Your task to perform on an android device: turn on priority inbox in the gmail app Image 0: 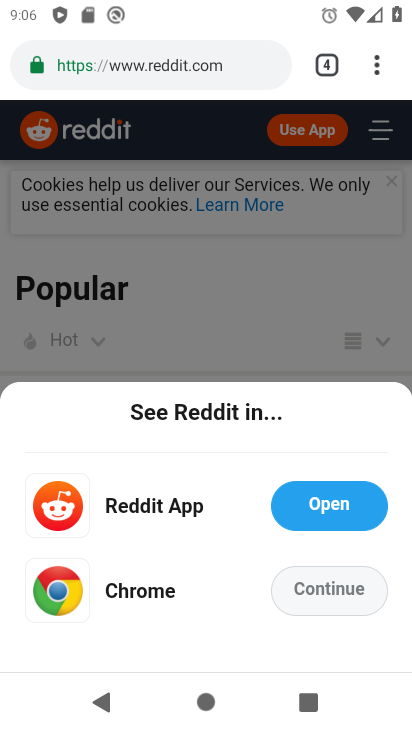
Step 0: press home button
Your task to perform on an android device: turn on priority inbox in the gmail app Image 1: 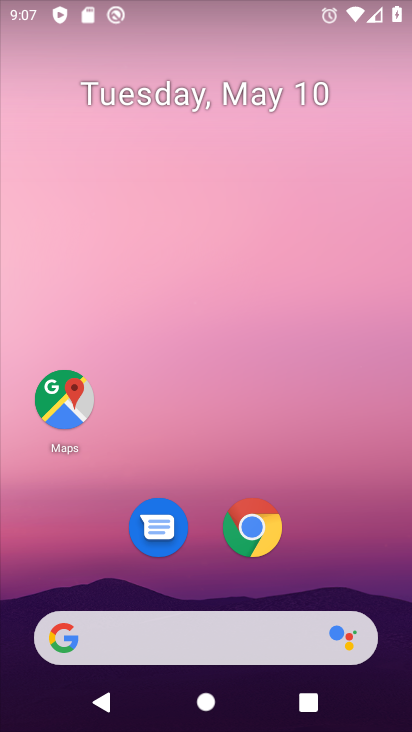
Step 1: drag from (219, 576) to (160, 0)
Your task to perform on an android device: turn on priority inbox in the gmail app Image 2: 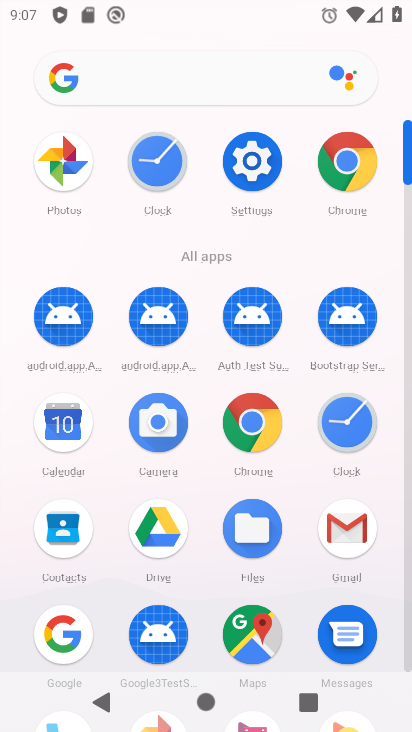
Step 2: click (342, 522)
Your task to perform on an android device: turn on priority inbox in the gmail app Image 3: 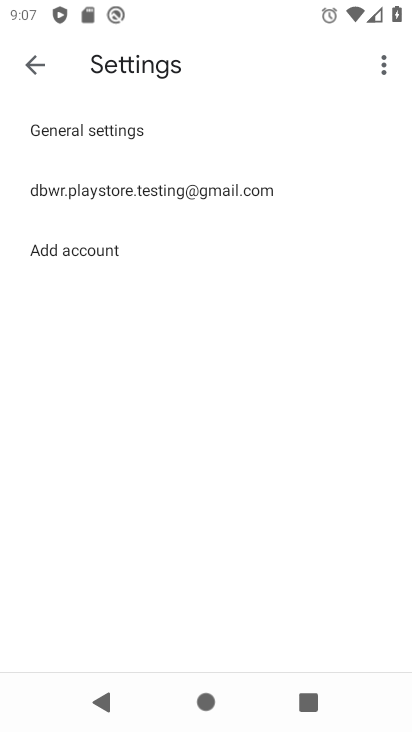
Step 3: click (80, 192)
Your task to perform on an android device: turn on priority inbox in the gmail app Image 4: 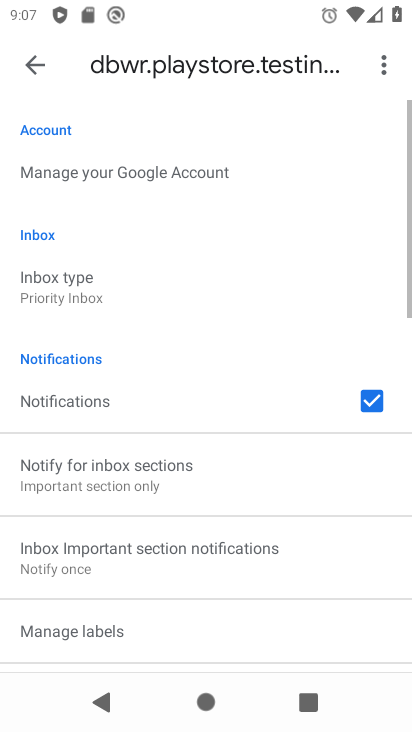
Step 4: click (102, 287)
Your task to perform on an android device: turn on priority inbox in the gmail app Image 5: 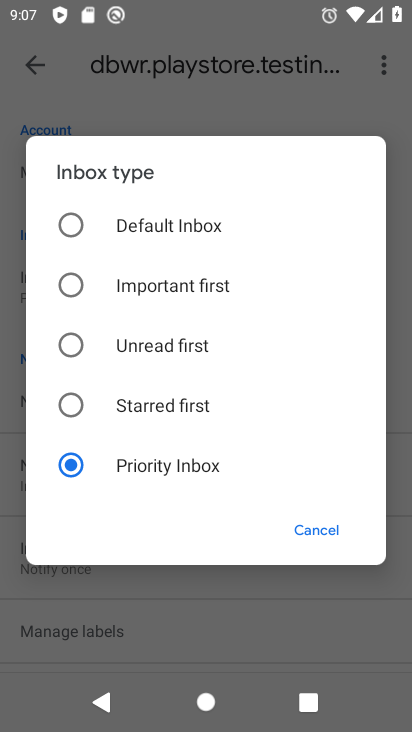
Step 5: click (156, 460)
Your task to perform on an android device: turn on priority inbox in the gmail app Image 6: 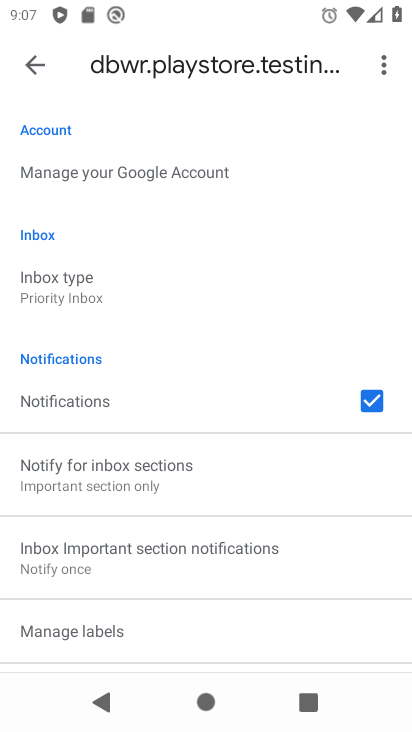
Step 6: task complete